Your task to perform on an android device: star an email in the gmail app Image 0: 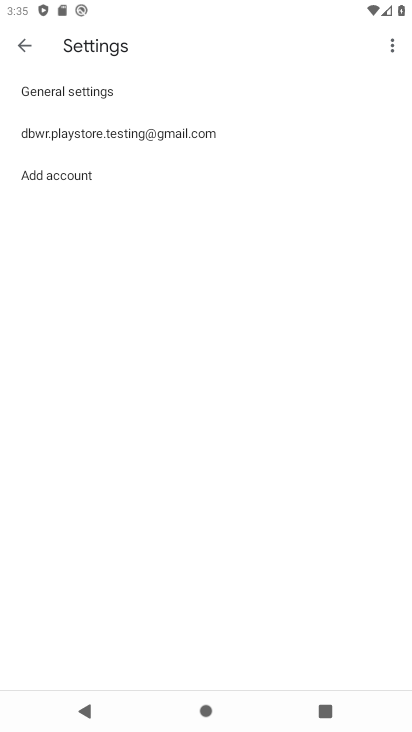
Step 0: press home button
Your task to perform on an android device: star an email in the gmail app Image 1: 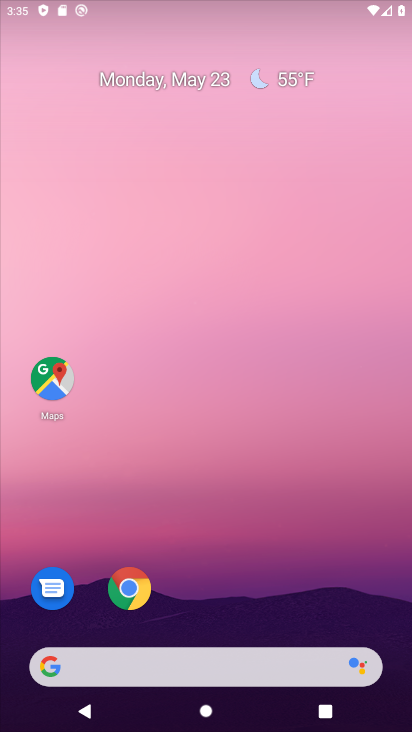
Step 1: drag from (217, 599) to (240, 138)
Your task to perform on an android device: star an email in the gmail app Image 2: 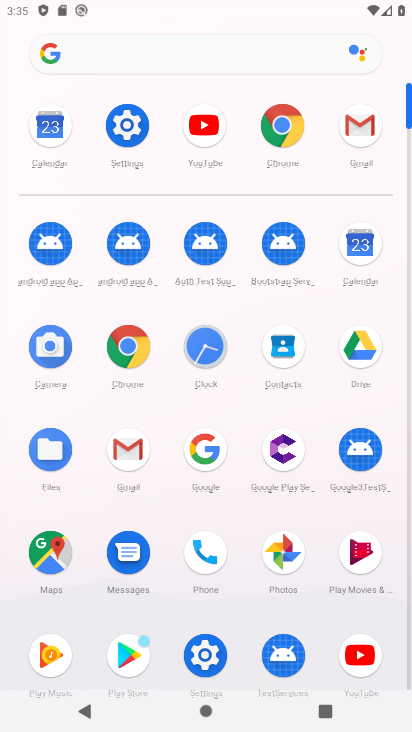
Step 2: click (350, 123)
Your task to perform on an android device: star an email in the gmail app Image 3: 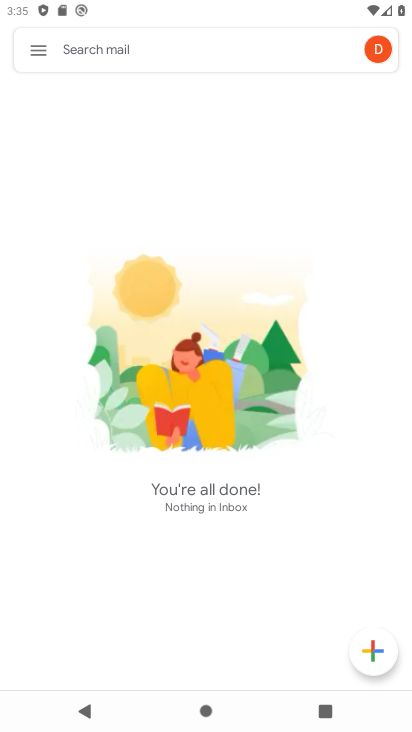
Step 3: click (38, 53)
Your task to perform on an android device: star an email in the gmail app Image 4: 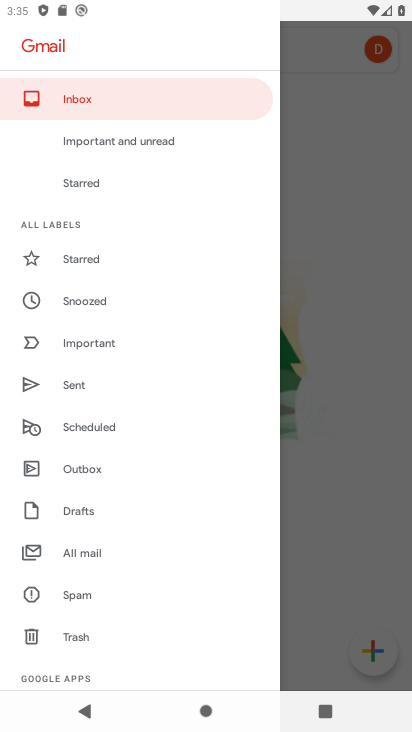
Step 4: click (103, 549)
Your task to perform on an android device: star an email in the gmail app Image 5: 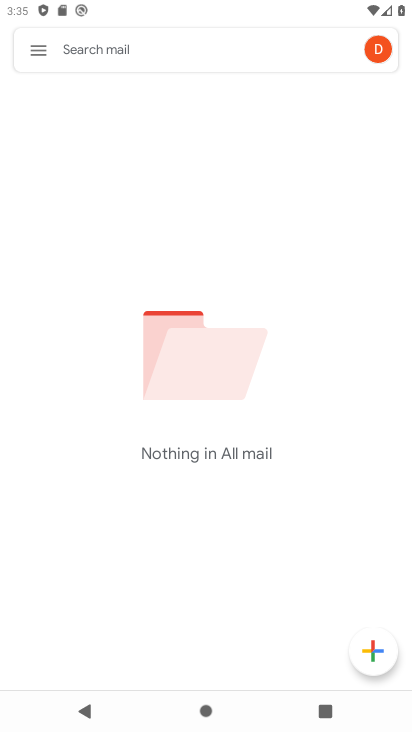
Step 5: task complete